Your task to perform on an android device: check data usage Image 0: 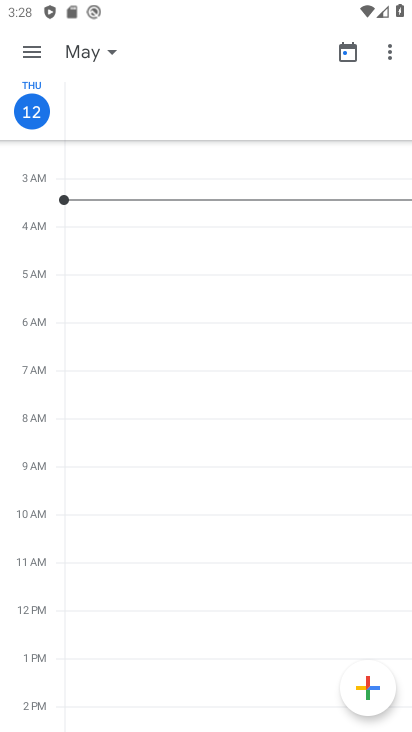
Step 0: press home button
Your task to perform on an android device: check data usage Image 1: 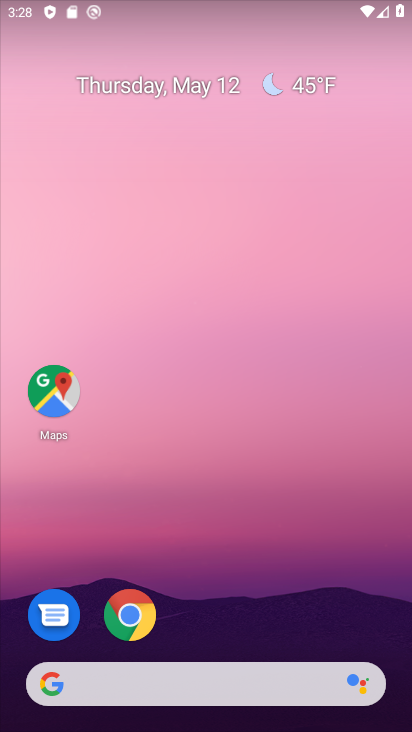
Step 1: drag from (328, 6) to (342, 524)
Your task to perform on an android device: check data usage Image 2: 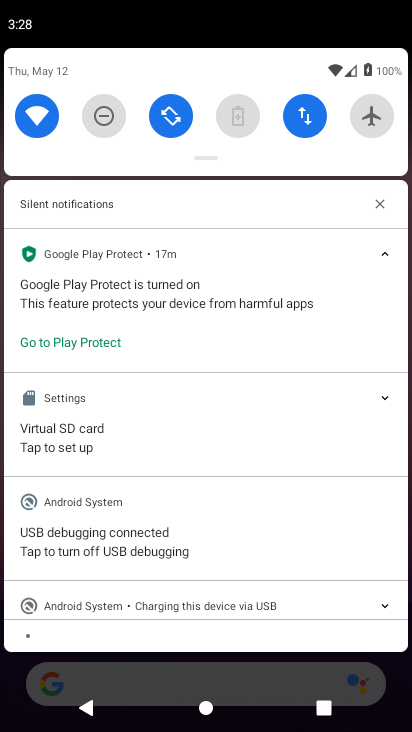
Step 2: click (304, 122)
Your task to perform on an android device: check data usage Image 3: 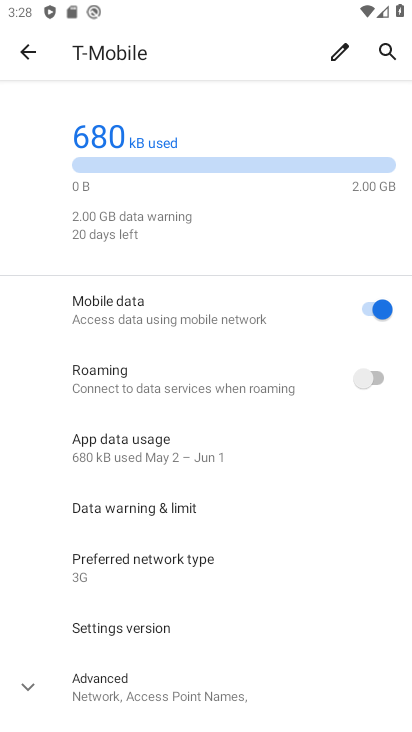
Step 3: task complete